Your task to perform on an android device: What's the weather today? Image 0: 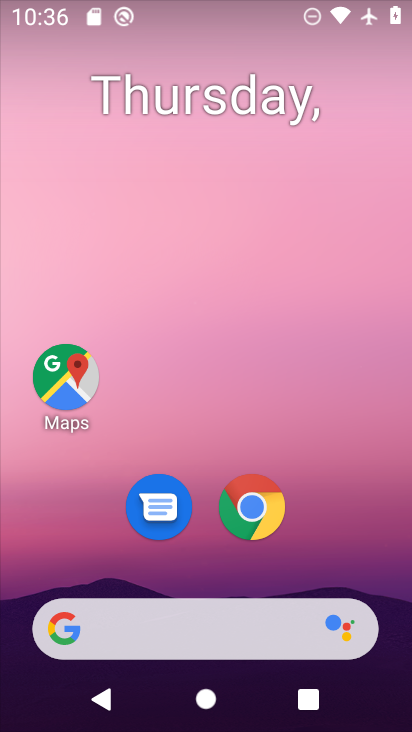
Step 0: drag from (332, 541) to (228, 5)
Your task to perform on an android device: What's the weather today? Image 1: 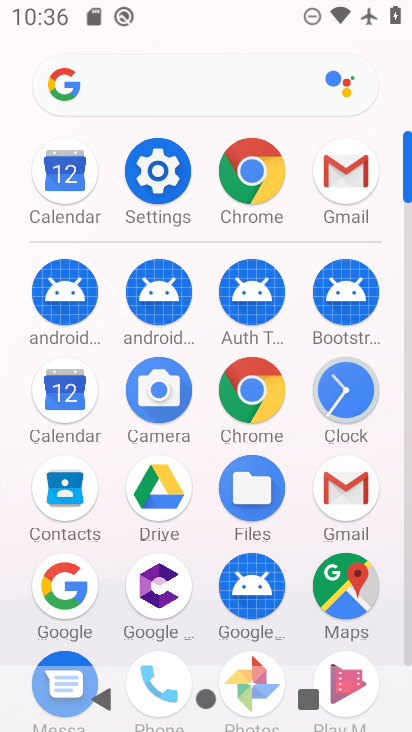
Step 1: drag from (0, 608) to (8, 249)
Your task to perform on an android device: What's the weather today? Image 2: 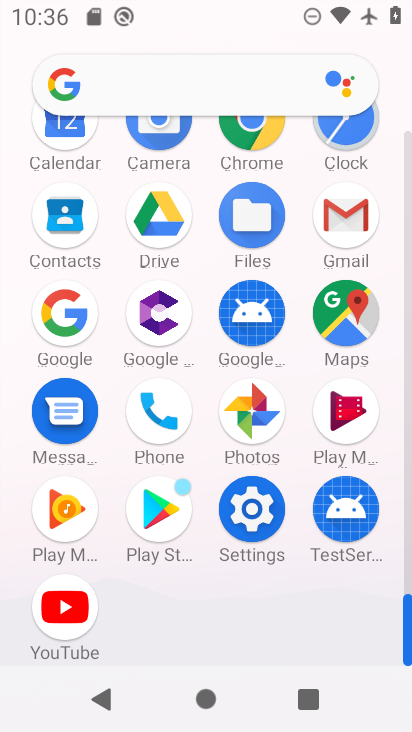
Step 2: click (11, 226)
Your task to perform on an android device: What's the weather today? Image 3: 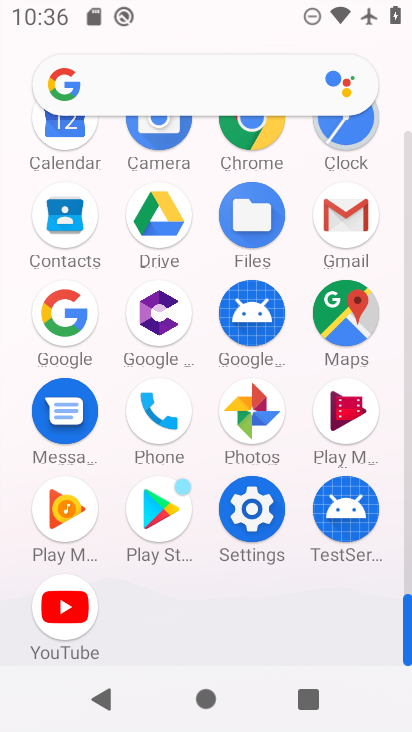
Step 3: click (256, 125)
Your task to perform on an android device: What's the weather today? Image 4: 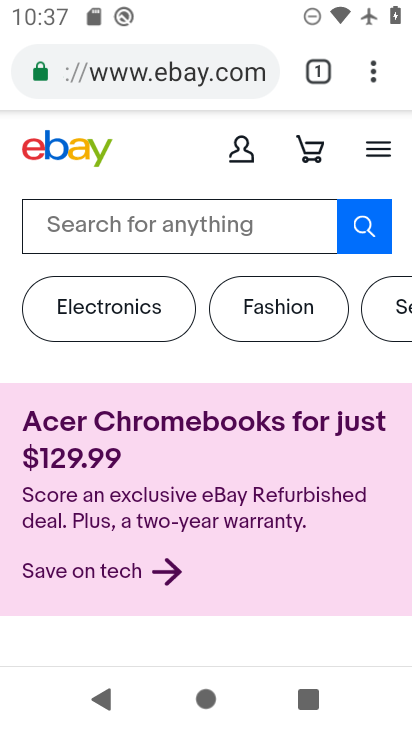
Step 4: click (165, 68)
Your task to perform on an android device: What's the weather today? Image 5: 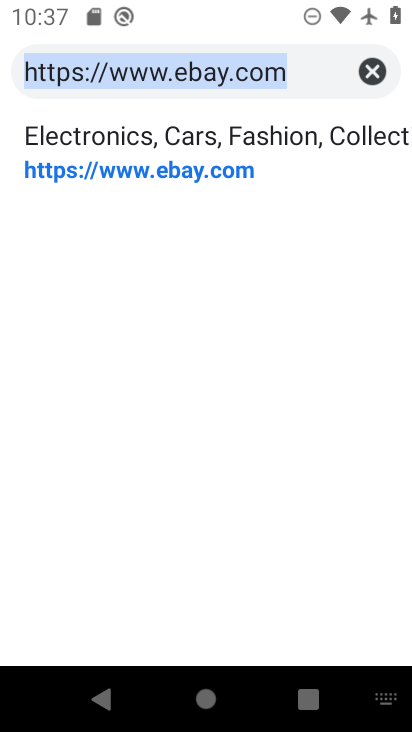
Step 5: click (369, 68)
Your task to perform on an android device: What's the weather today? Image 6: 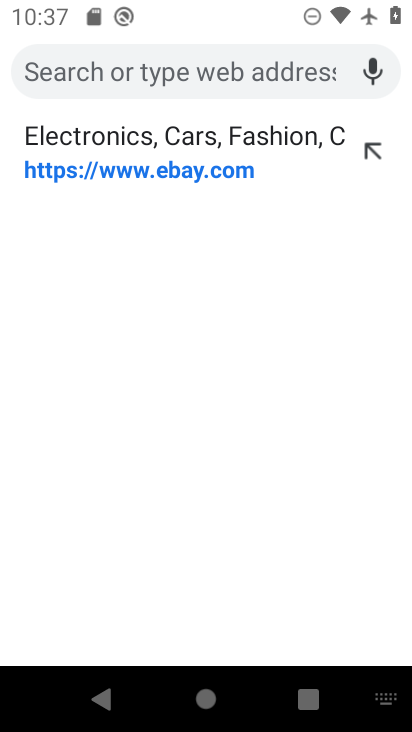
Step 6: type "What's the weather today?"
Your task to perform on an android device: What's the weather today? Image 7: 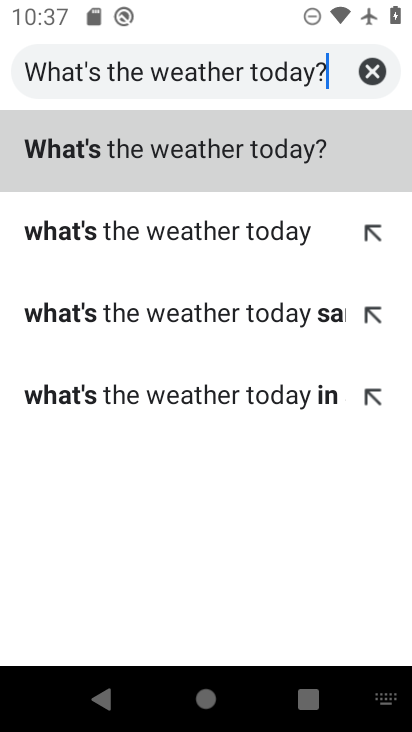
Step 7: type ""
Your task to perform on an android device: What's the weather today? Image 8: 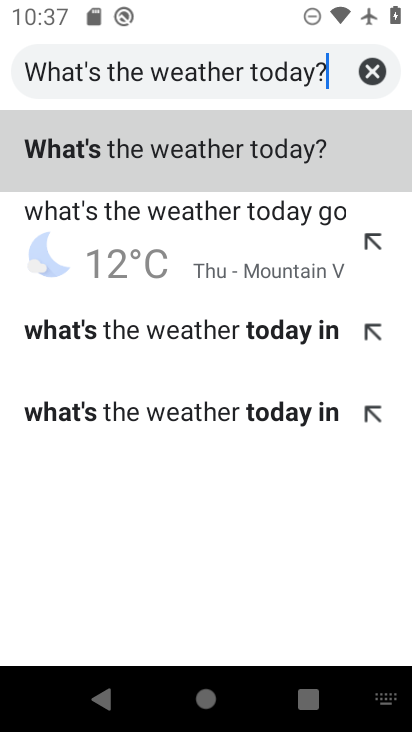
Step 8: click (119, 148)
Your task to perform on an android device: What's the weather today? Image 9: 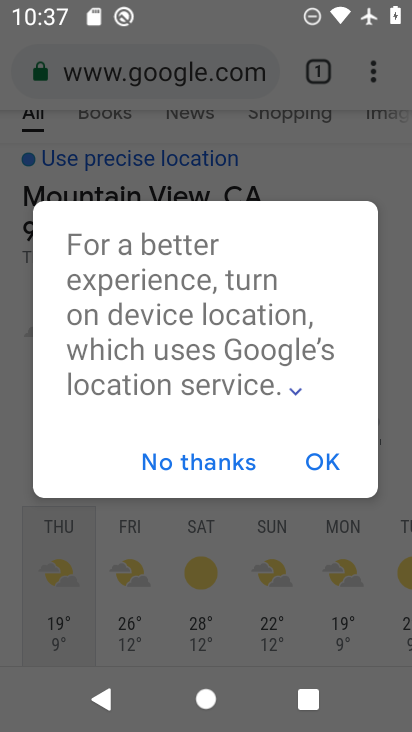
Step 9: click (307, 451)
Your task to perform on an android device: What's the weather today? Image 10: 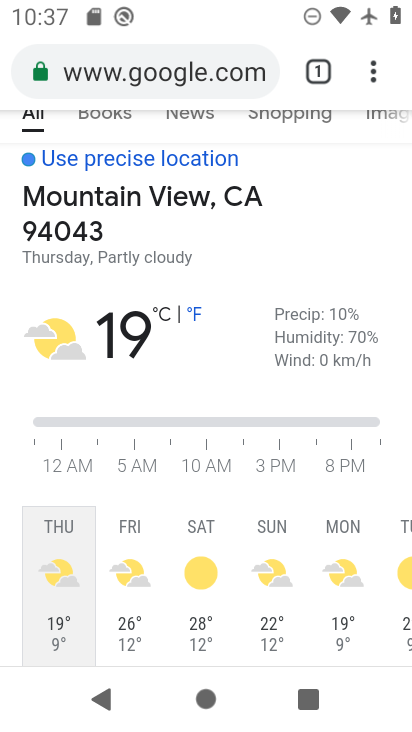
Step 10: task complete